Your task to perform on an android device: What is the news today? Image 0: 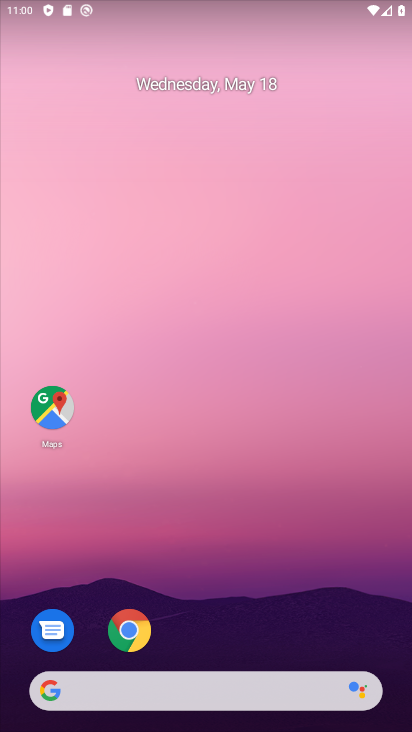
Step 0: click (218, 630)
Your task to perform on an android device: What is the news today? Image 1: 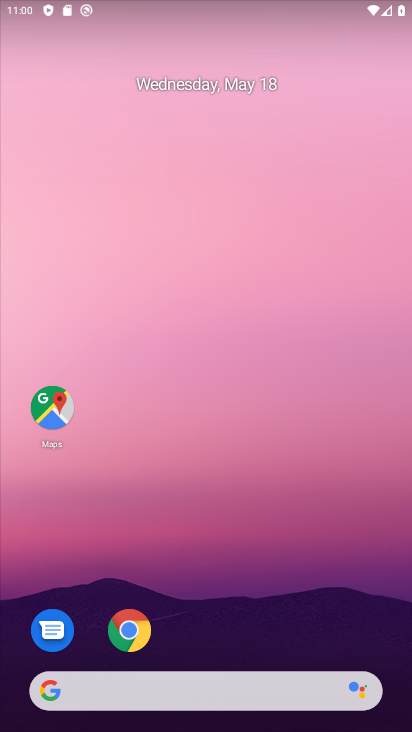
Step 1: click (199, 654)
Your task to perform on an android device: What is the news today? Image 2: 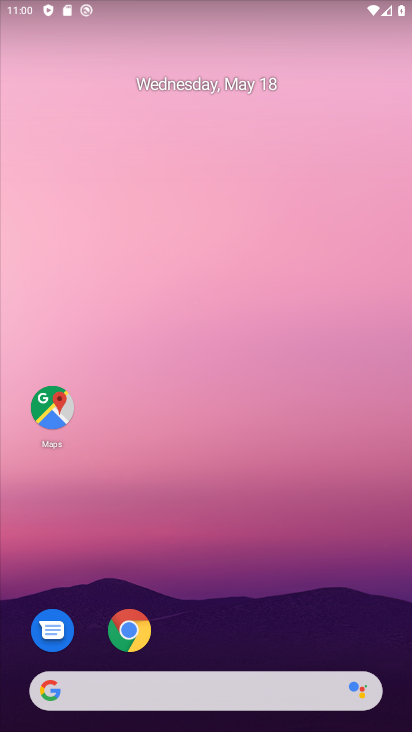
Step 2: click (196, 681)
Your task to perform on an android device: What is the news today? Image 3: 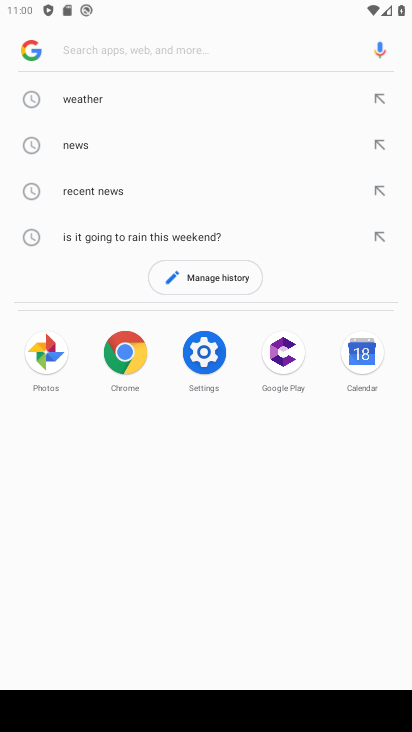
Step 3: type "news today ?"
Your task to perform on an android device: What is the news today? Image 4: 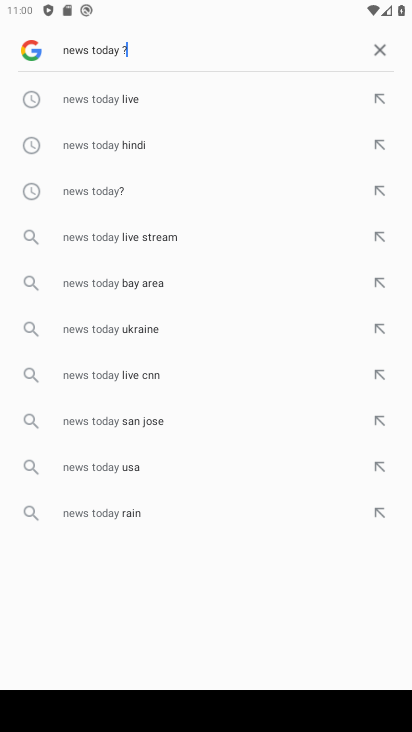
Step 4: click (123, 189)
Your task to perform on an android device: What is the news today? Image 5: 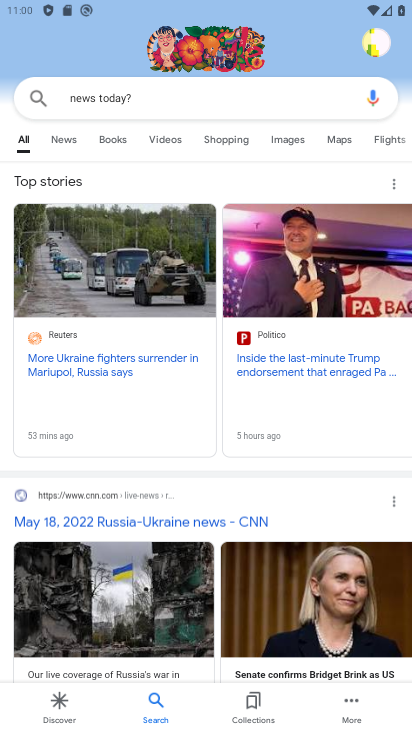
Step 5: task complete